Your task to perform on an android device: check data usage Image 0: 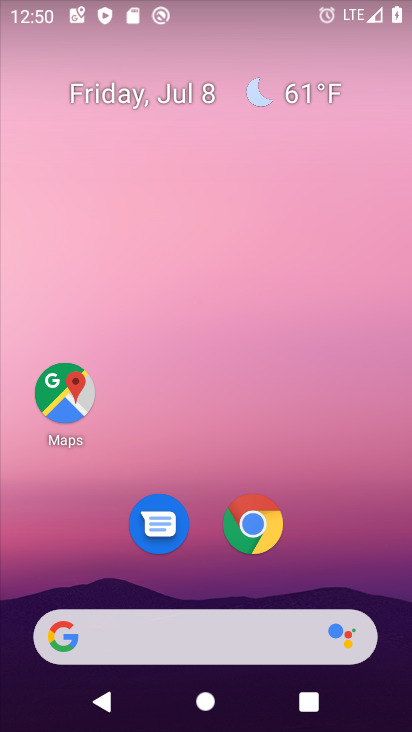
Step 0: drag from (330, 507) to (313, 49)
Your task to perform on an android device: check data usage Image 1: 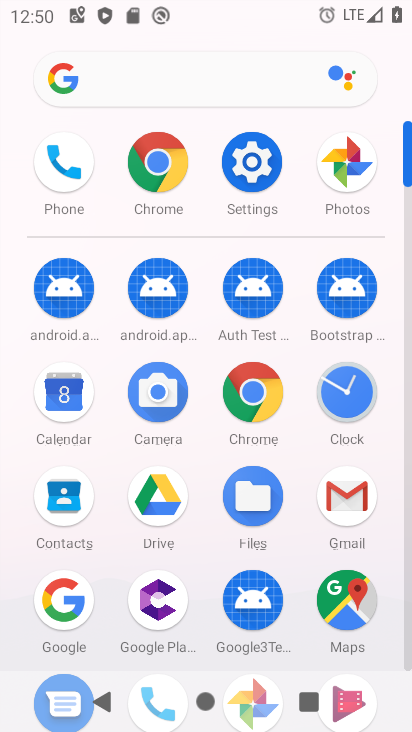
Step 1: click (263, 170)
Your task to perform on an android device: check data usage Image 2: 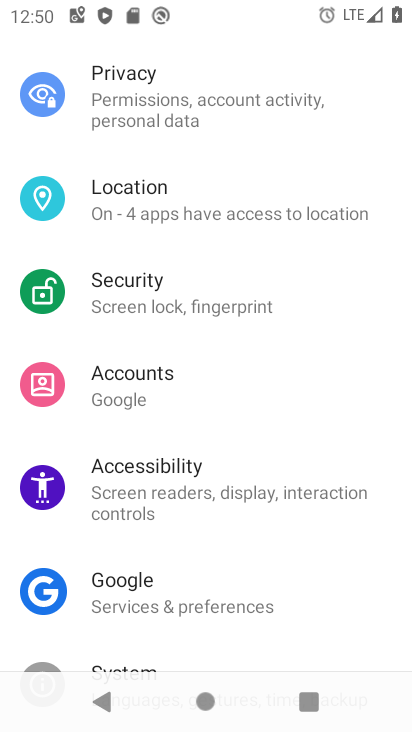
Step 2: drag from (262, 167) to (268, 646)
Your task to perform on an android device: check data usage Image 3: 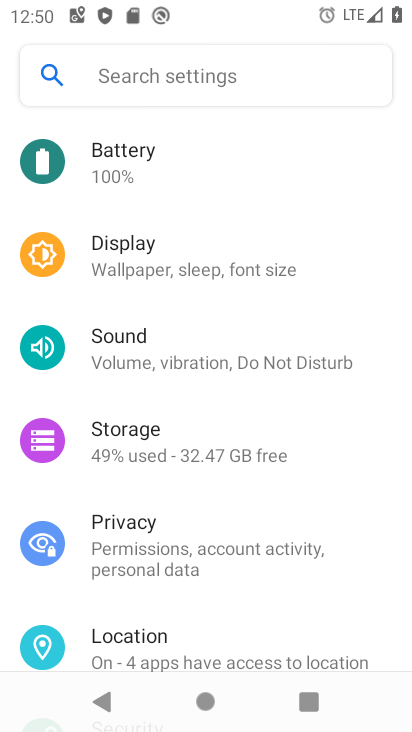
Step 3: drag from (238, 222) to (223, 661)
Your task to perform on an android device: check data usage Image 4: 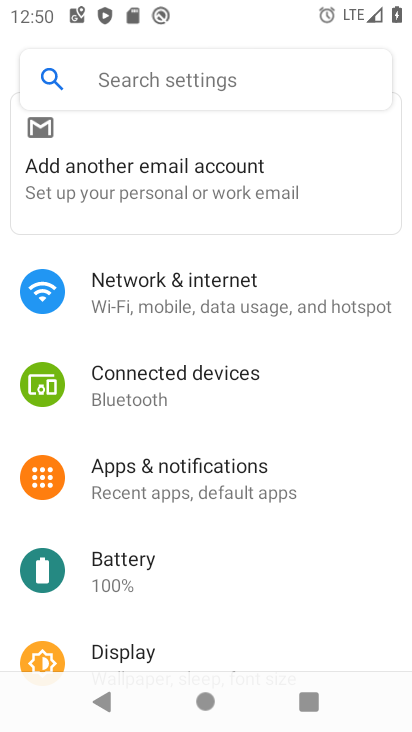
Step 4: click (252, 304)
Your task to perform on an android device: check data usage Image 5: 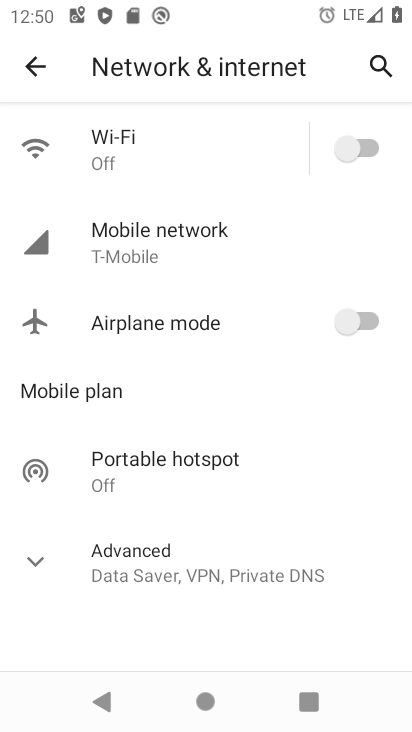
Step 5: click (184, 240)
Your task to perform on an android device: check data usage Image 6: 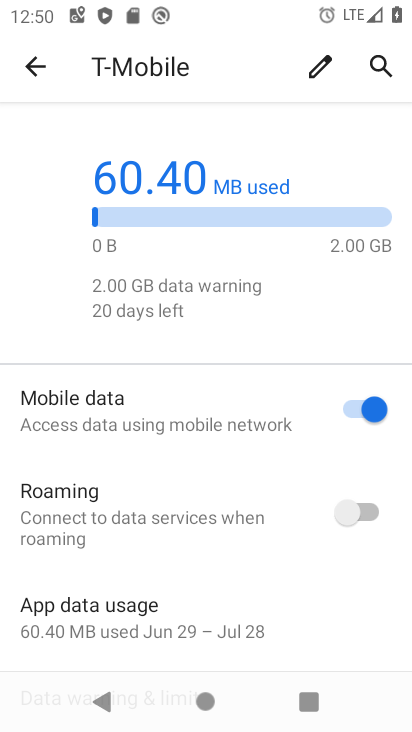
Step 6: task complete